Your task to perform on an android device: move an email to a new category in the gmail app Image 0: 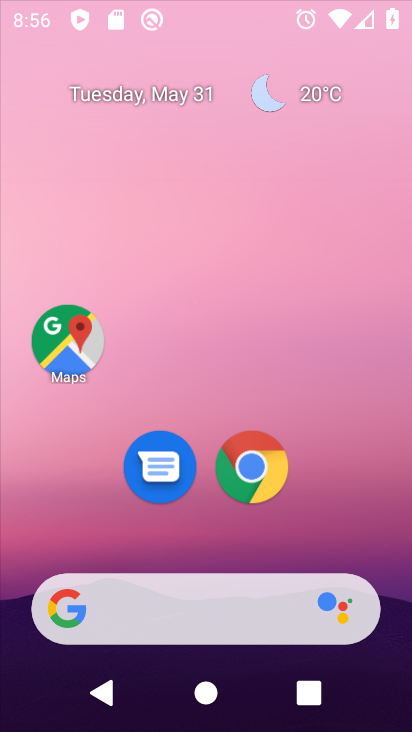
Step 0: drag from (189, 505) to (275, 19)
Your task to perform on an android device: move an email to a new category in the gmail app Image 1: 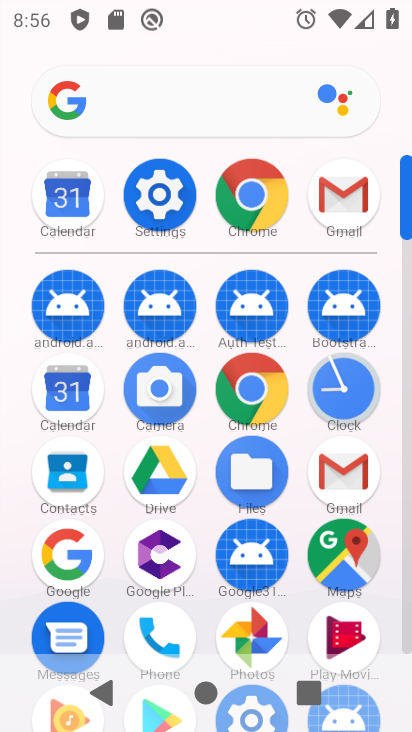
Step 1: click (337, 472)
Your task to perform on an android device: move an email to a new category in the gmail app Image 2: 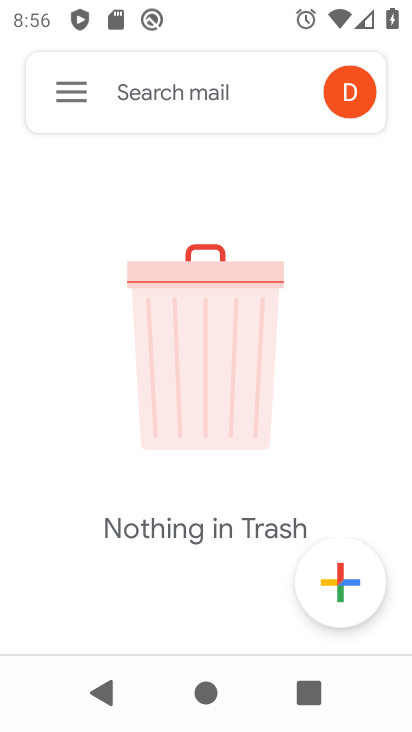
Step 2: drag from (228, 586) to (269, 425)
Your task to perform on an android device: move an email to a new category in the gmail app Image 3: 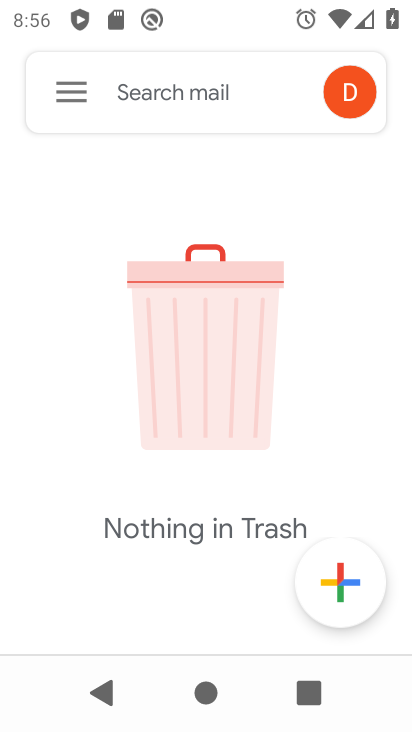
Step 3: click (52, 89)
Your task to perform on an android device: move an email to a new category in the gmail app Image 4: 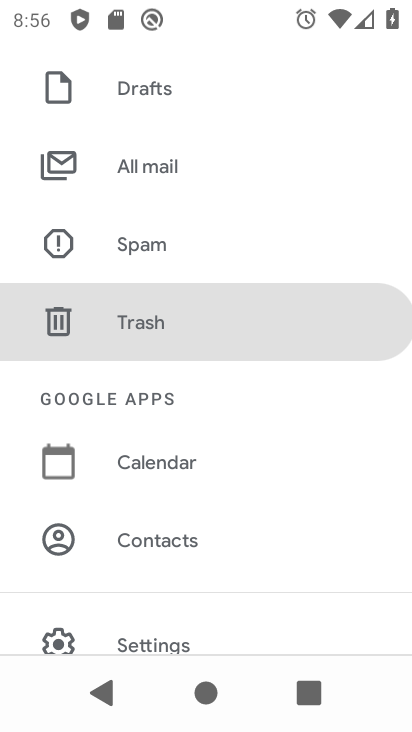
Step 4: drag from (183, 239) to (186, 406)
Your task to perform on an android device: move an email to a new category in the gmail app Image 5: 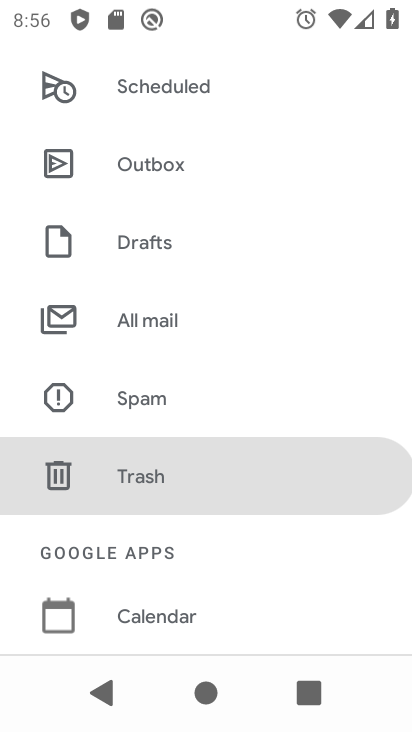
Step 5: click (130, 337)
Your task to perform on an android device: move an email to a new category in the gmail app Image 6: 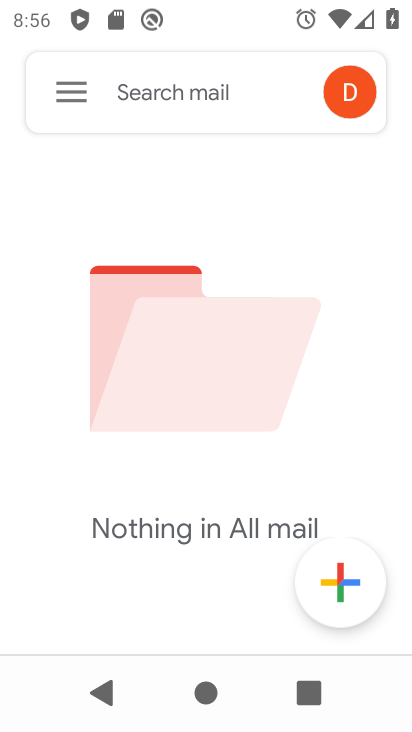
Step 6: task complete